Your task to perform on an android device: open app "Truecaller" (install if not already installed) and enter user name: "coauthor@gmail.com" and password: "quadrangle" Image 0: 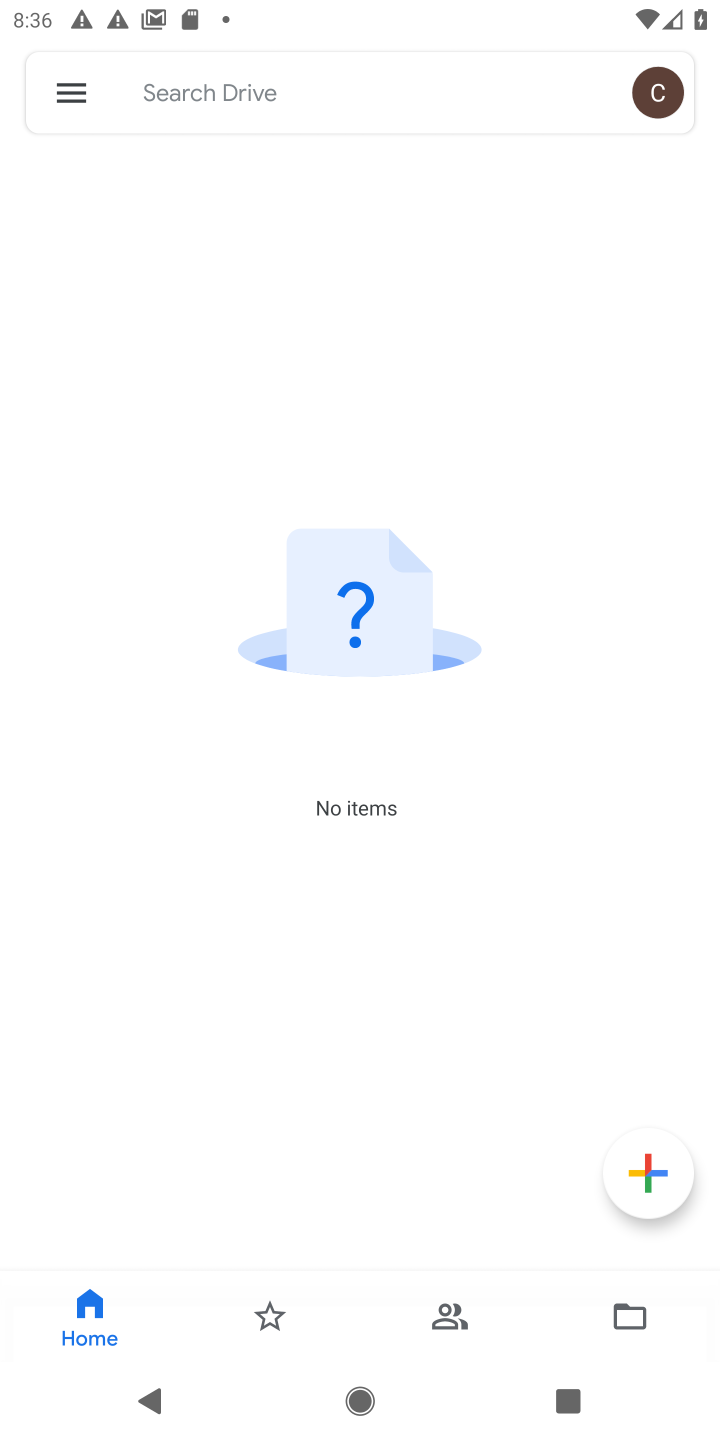
Step 0: press back button
Your task to perform on an android device: open app "Truecaller" (install if not already installed) and enter user name: "coauthor@gmail.com" and password: "quadrangle" Image 1: 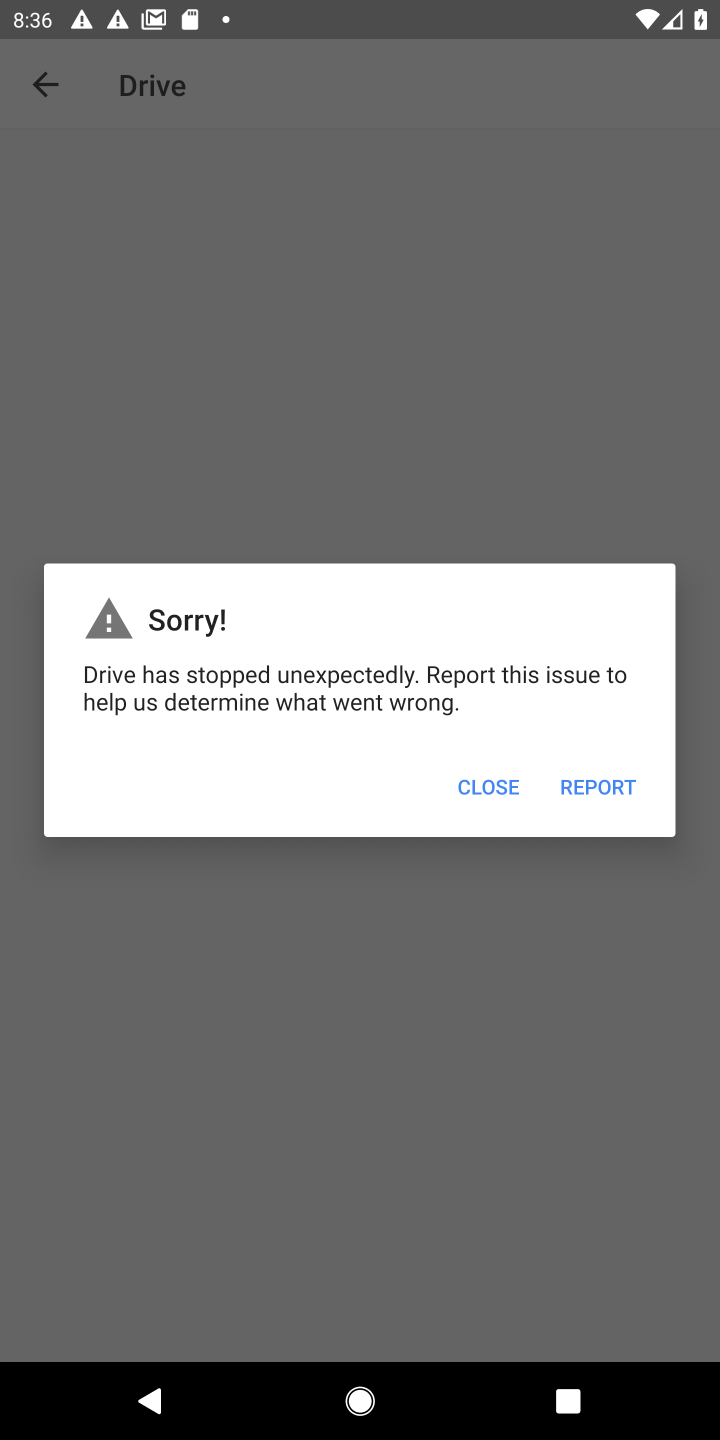
Step 1: press back button
Your task to perform on an android device: open app "Truecaller" (install if not already installed) and enter user name: "coauthor@gmail.com" and password: "quadrangle" Image 2: 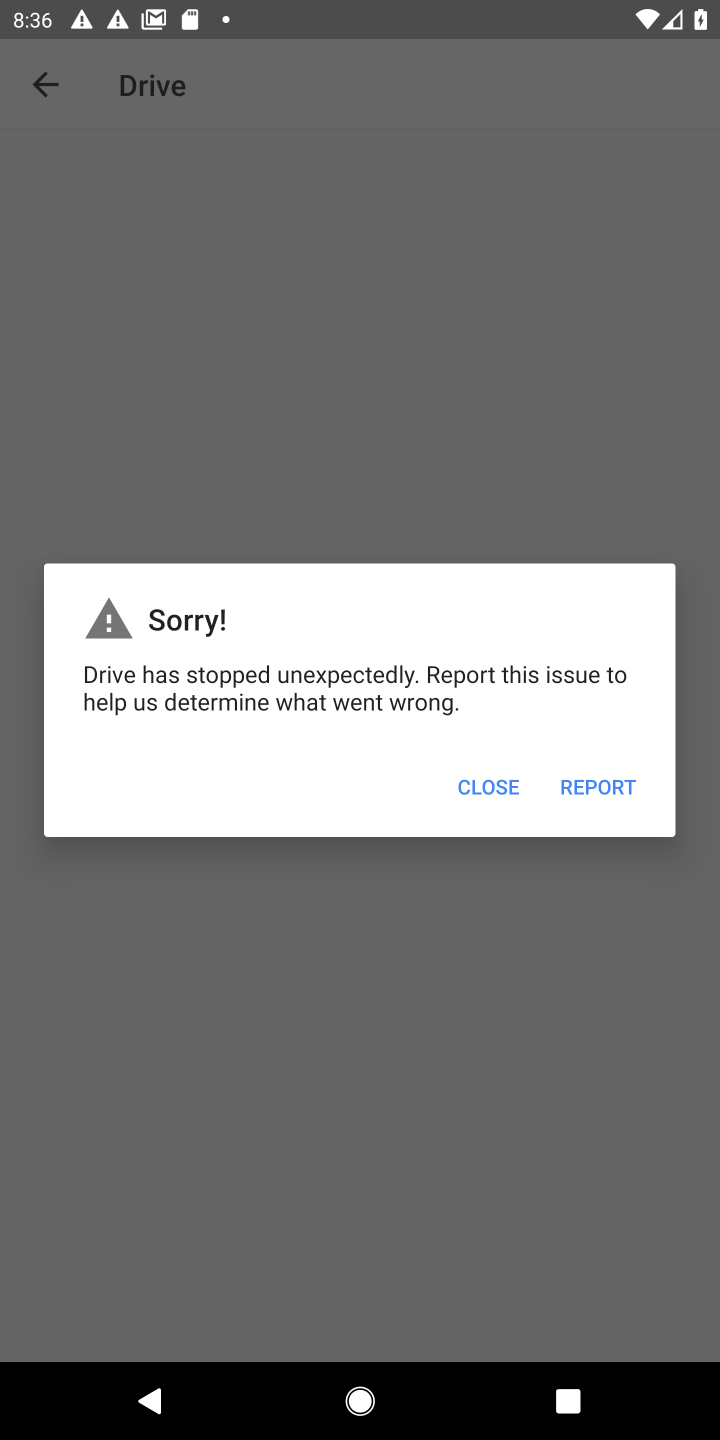
Step 2: press back button
Your task to perform on an android device: open app "Truecaller" (install if not already installed) and enter user name: "coauthor@gmail.com" and password: "quadrangle" Image 3: 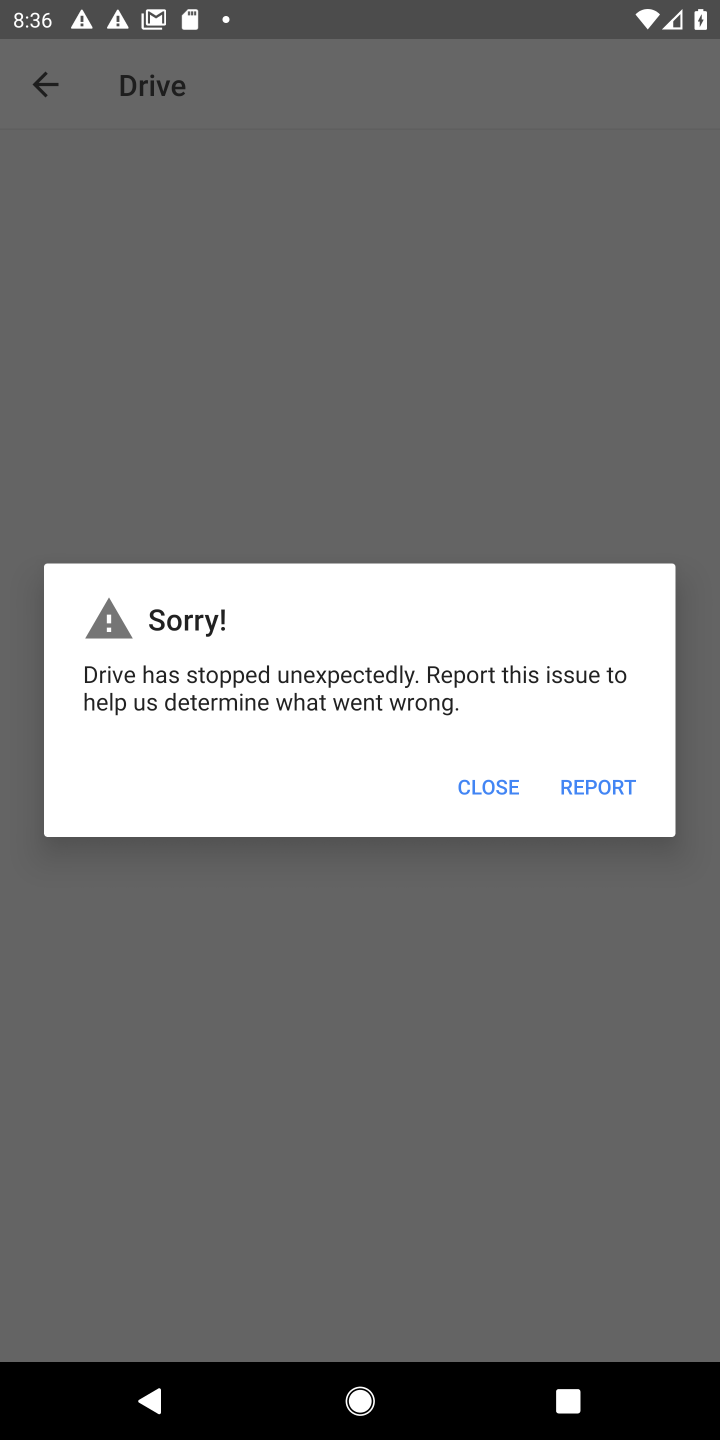
Step 3: click (523, 771)
Your task to perform on an android device: open app "Truecaller" (install if not already installed) and enter user name: "coauthor@gmail.com" and password: "quadrangle" Image 4: 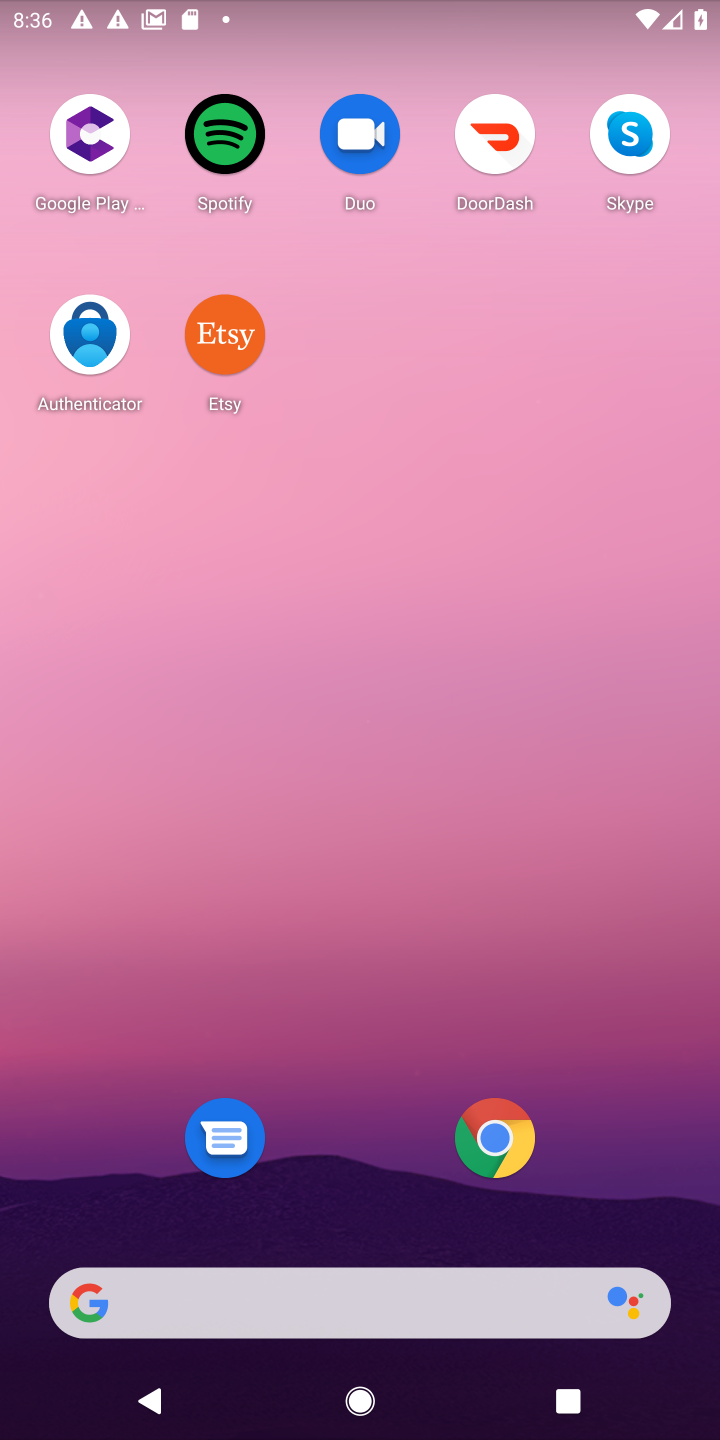
Step 4: drag from (346, 1244) to (387, 134)
Your task to perform on an android device: open app "Truecaller" (install if not already installed) and enter user name: "coauthor@gmail.com" and password: "quadrangle" Image 5: 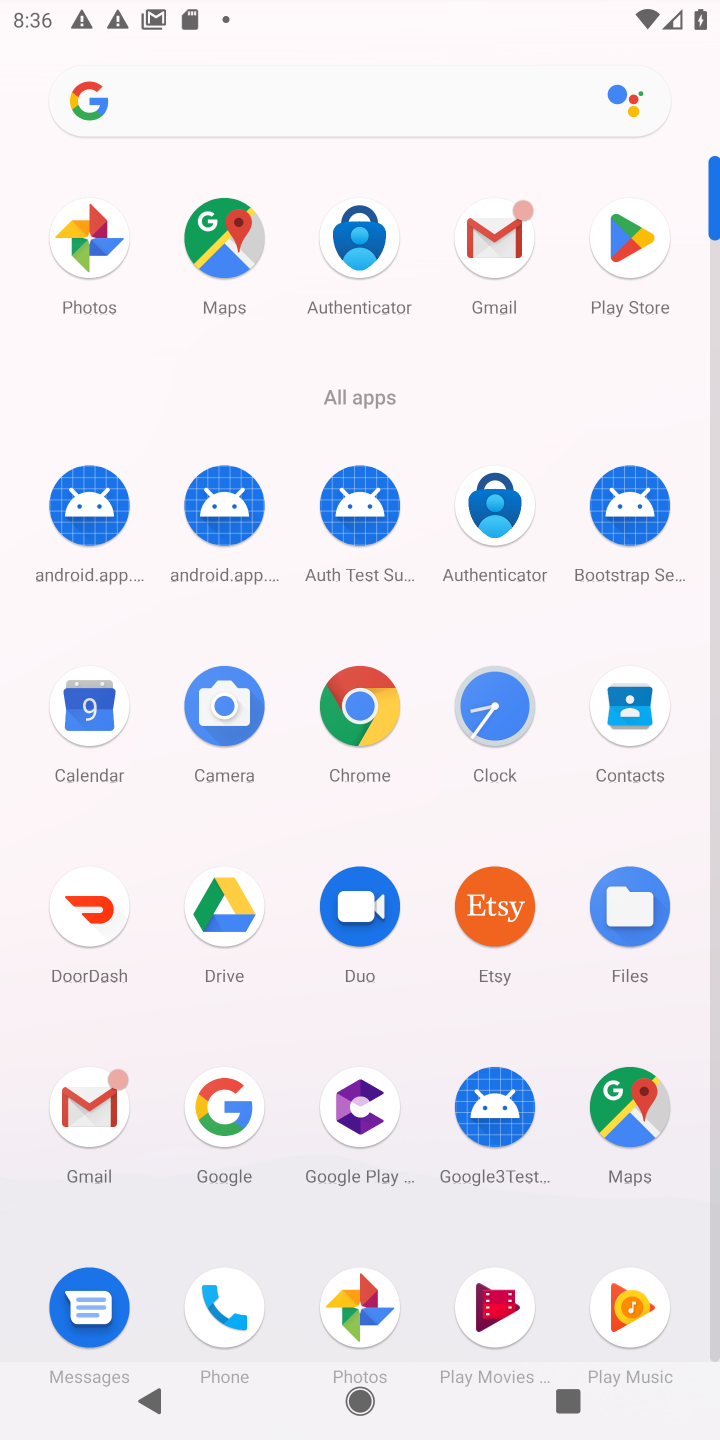
Step 5: click (375, 110)
Your task to perform on an android device: open app "Truecaller" (install if not already installed) and enter user name: "coauthor@gmail.com" and password: "quadrangle" Image 6: 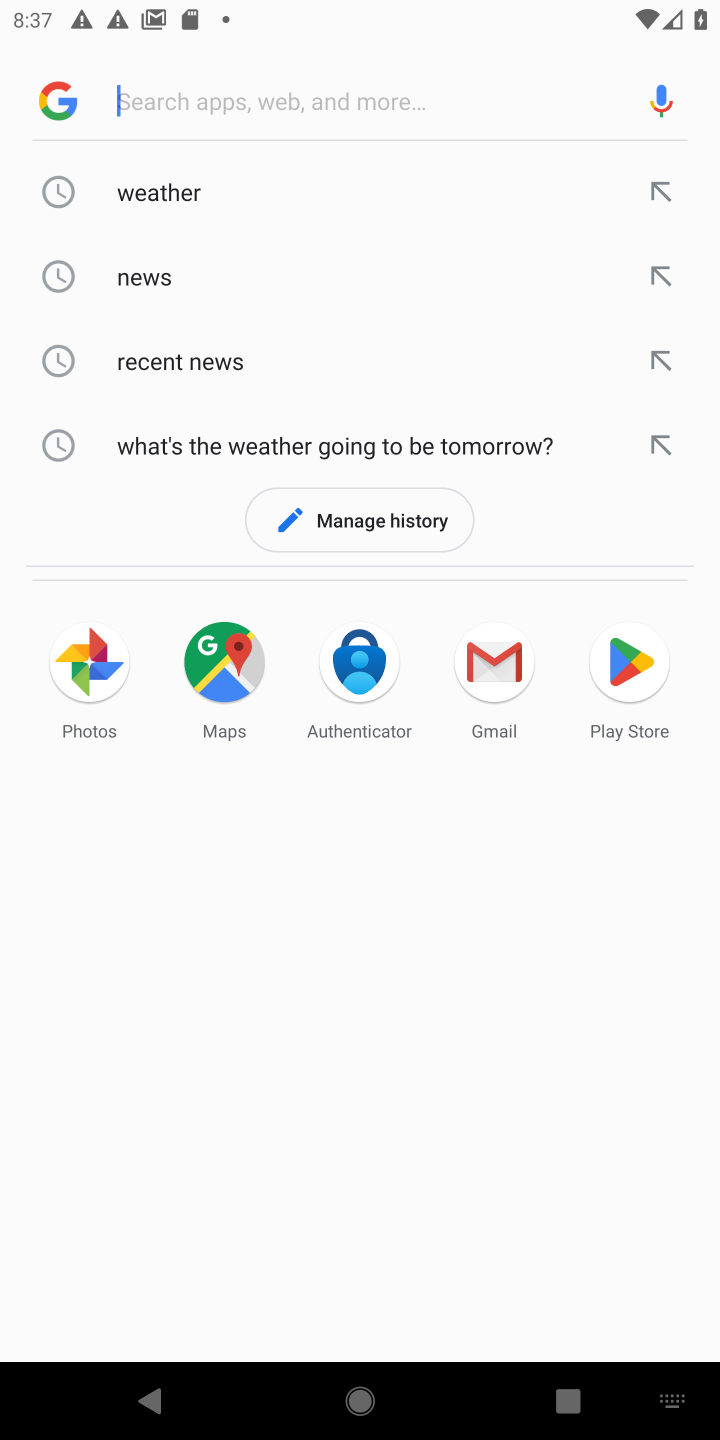
Step 6: type "truecaller"
Your task to perform on an android device: open app "Truecaller" (install if not already installed) and enter user name: "coauthor@gmail.com" and password: "quadrangle" Image 7: 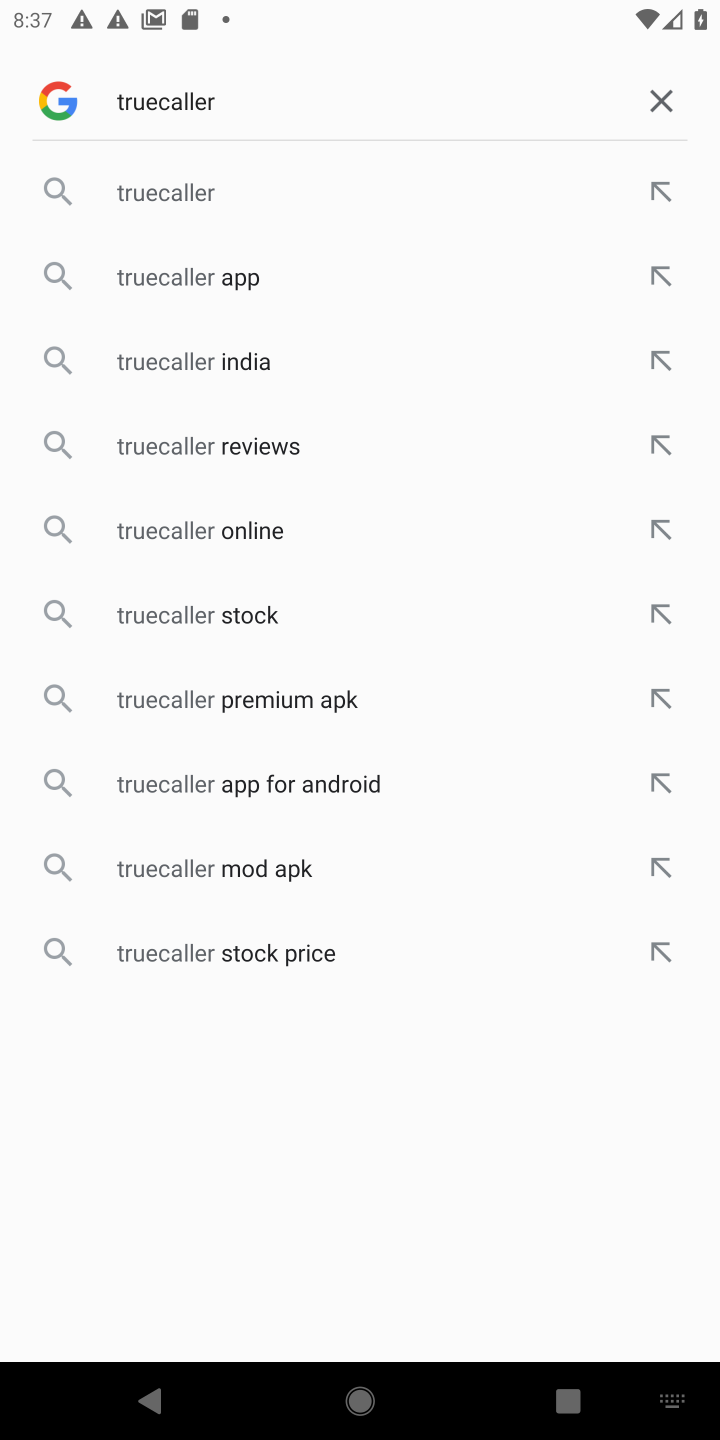
Step 7: click (473, 183)
Your task to perform on an android device: open app "Truecaller" (install if not already installed) and enter user name: "coauthor@gmail.com" and password: "quadrangle" Image 8: 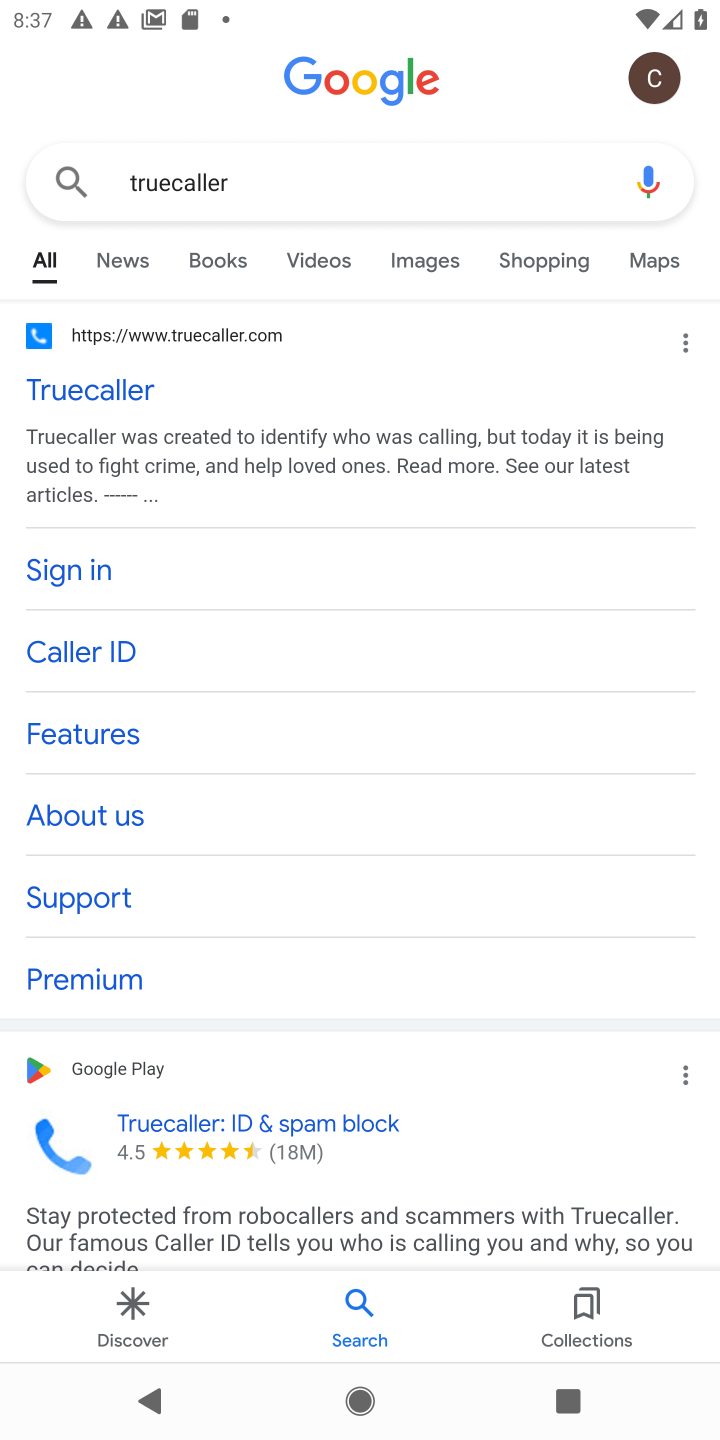
Step 8: drag from (450, 1151) to (518, 501)
Your task to perform on an android device: open app "Truecaller" (install if not already installed) and enter user name: "coauthor@gmail.com" and password: "quadrangle" Image 9: 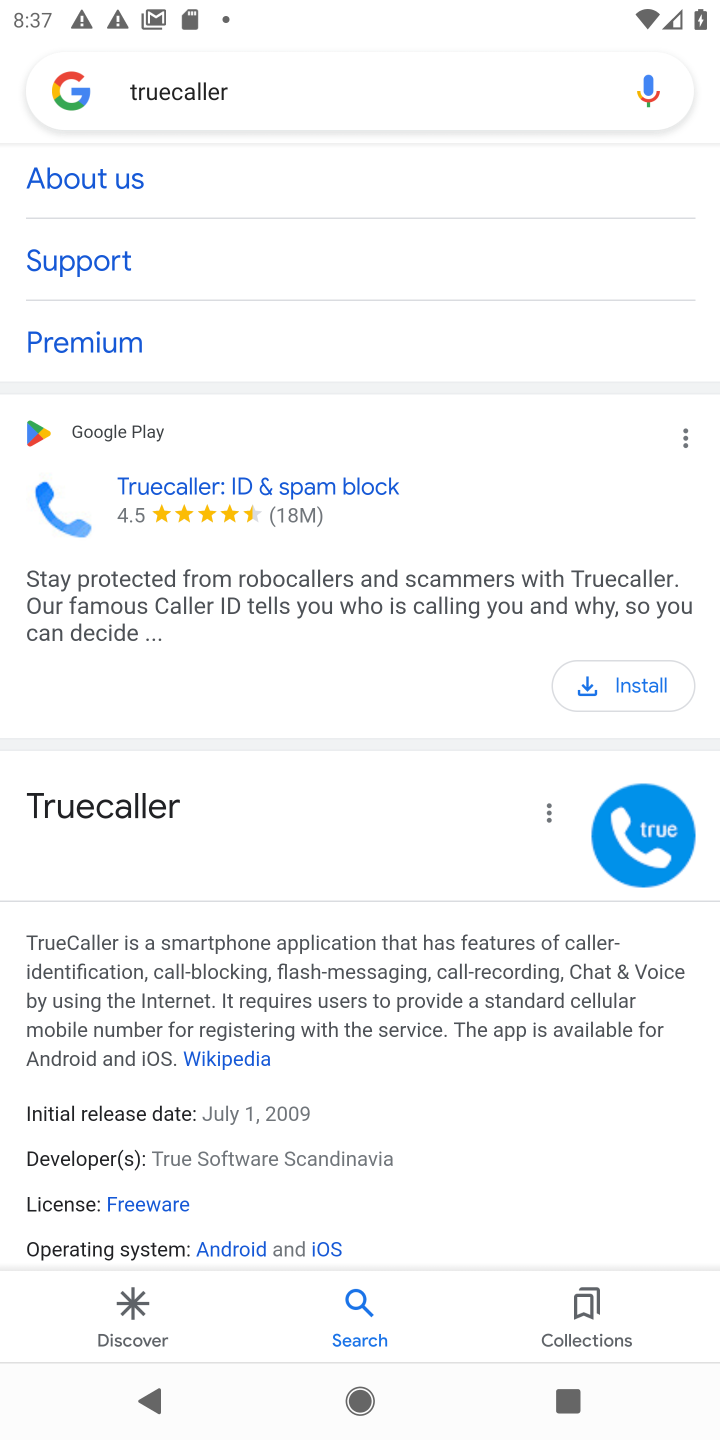
Step 9: click (587, 832)
Your task to perform on an android device: open app "Truecaller" (install if not already installed) and enter user name: "coauthor@gmail.com" and password: "quadrangle" Image 10: 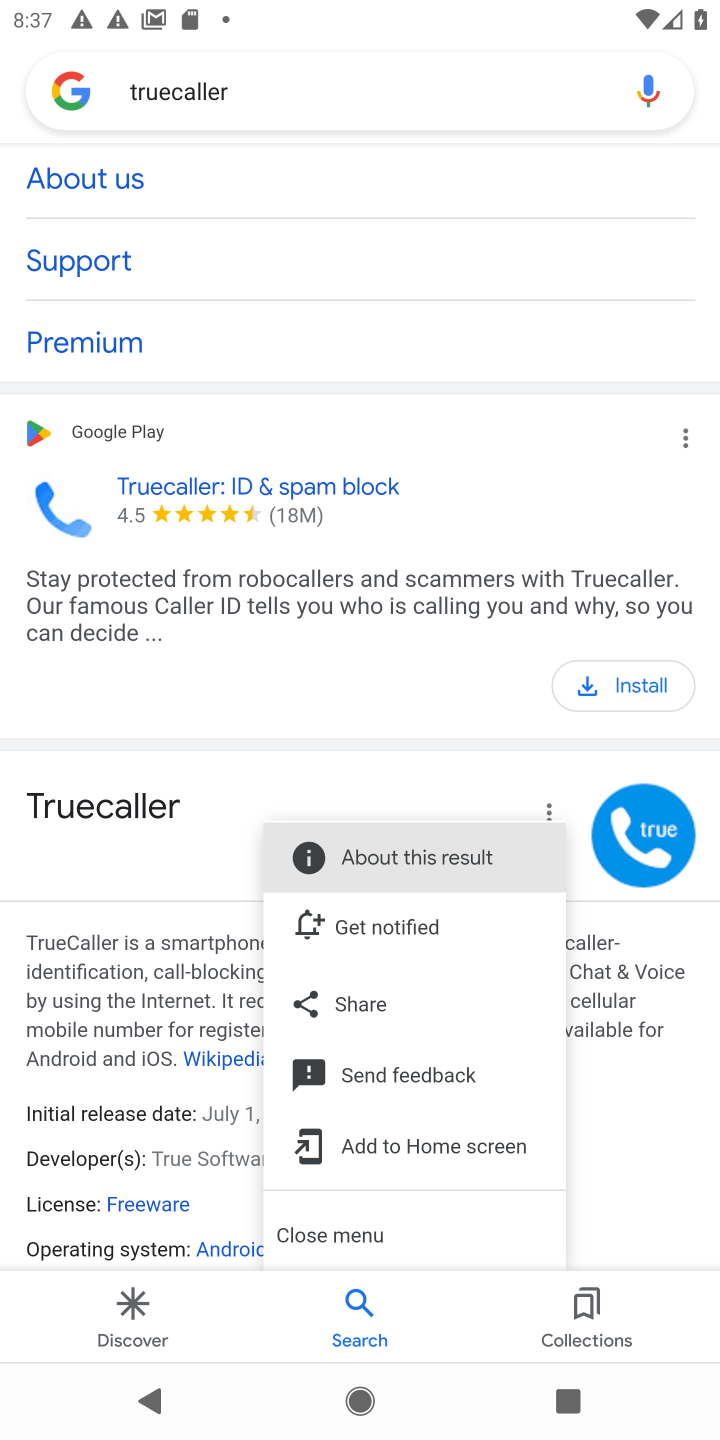
Step 10: click (591, 687)
Your task to perform on an android device: open app "Truecaller" (install if not already installed) and enter user name: "coauthor@gmail.com" and password: "quadrangle" Image 11: 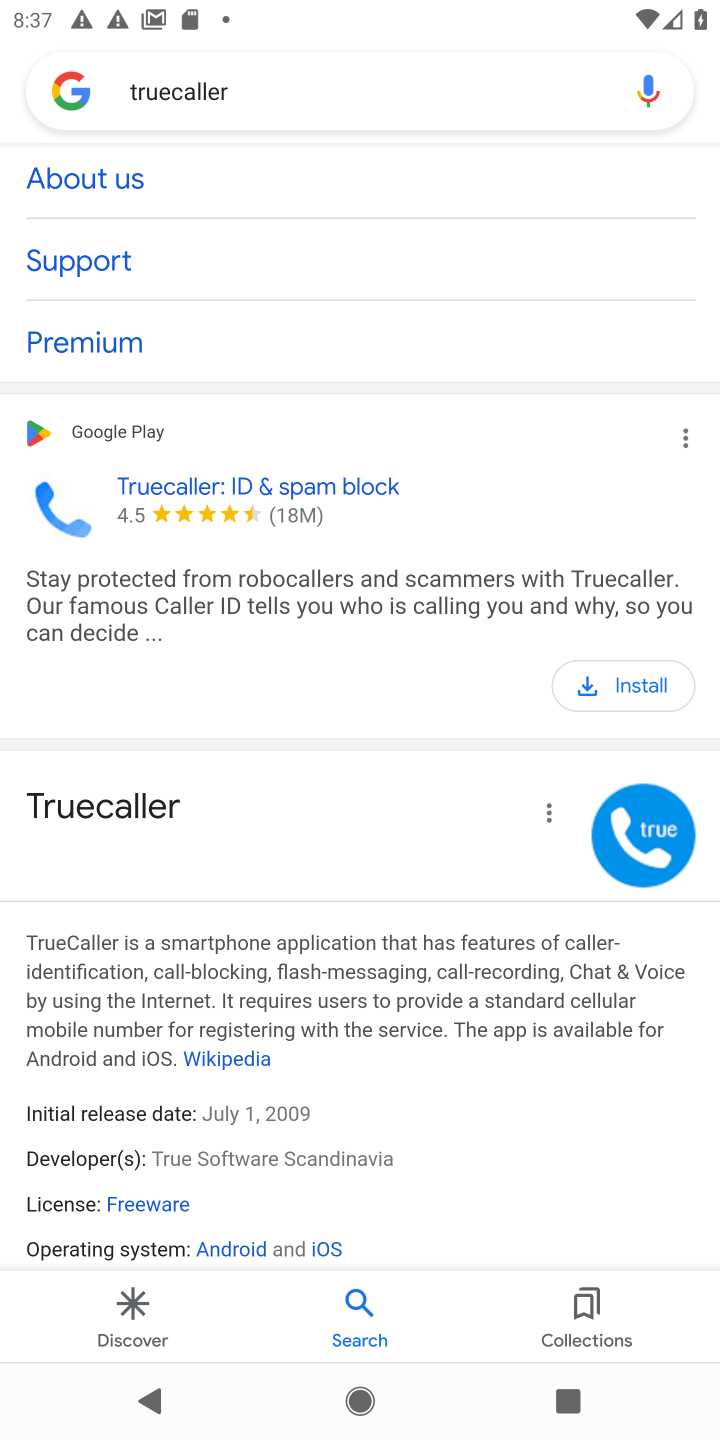
Step 11: click (591, 687)
Your task to perform on an android device: open app "Truecaller" (install if not already installed) and enter user name: "coauthor@gmail.com" and password: "quadrangle" Image 12: 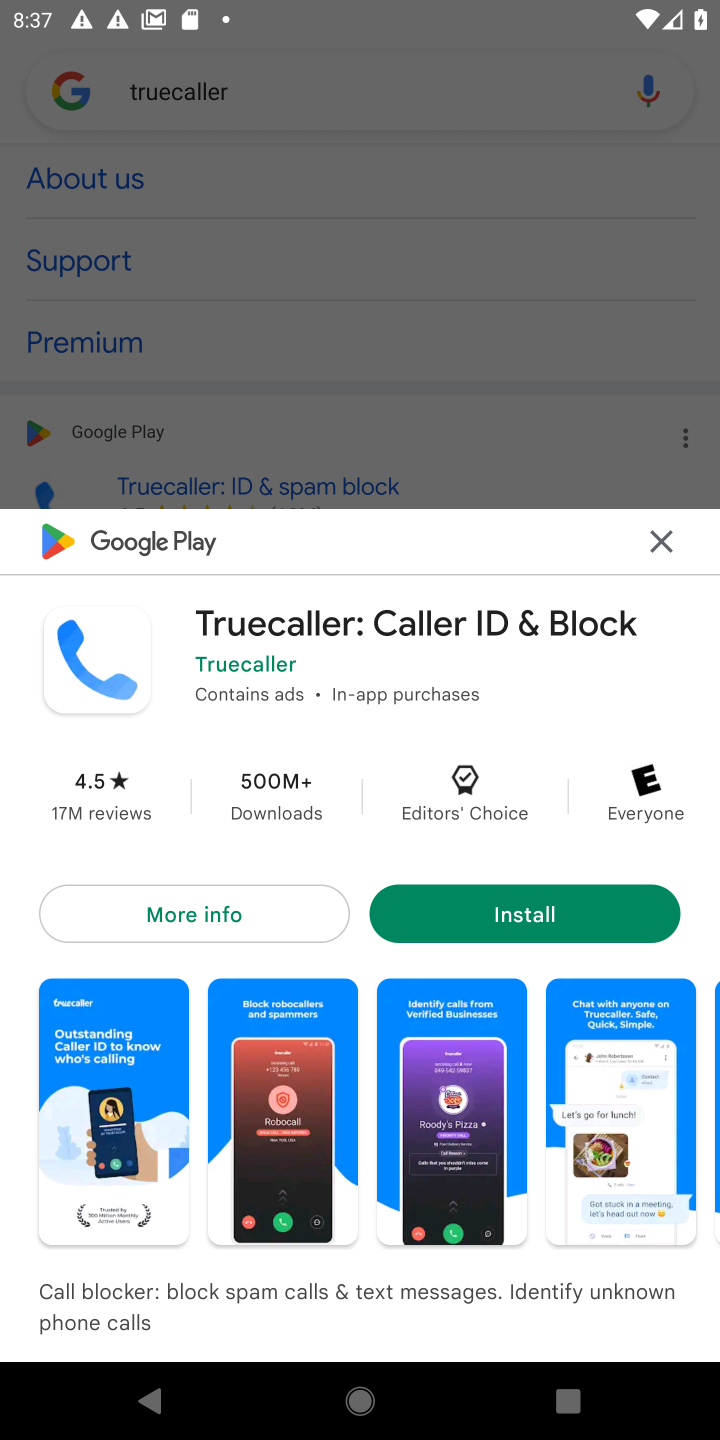
Step 12: click (506, 932)
Your task to perform on an android device: open app "Truecaller" (install if not already installed) and enter user name: "coauthor@gmail.com" and password: "quadrangle" Image 13: 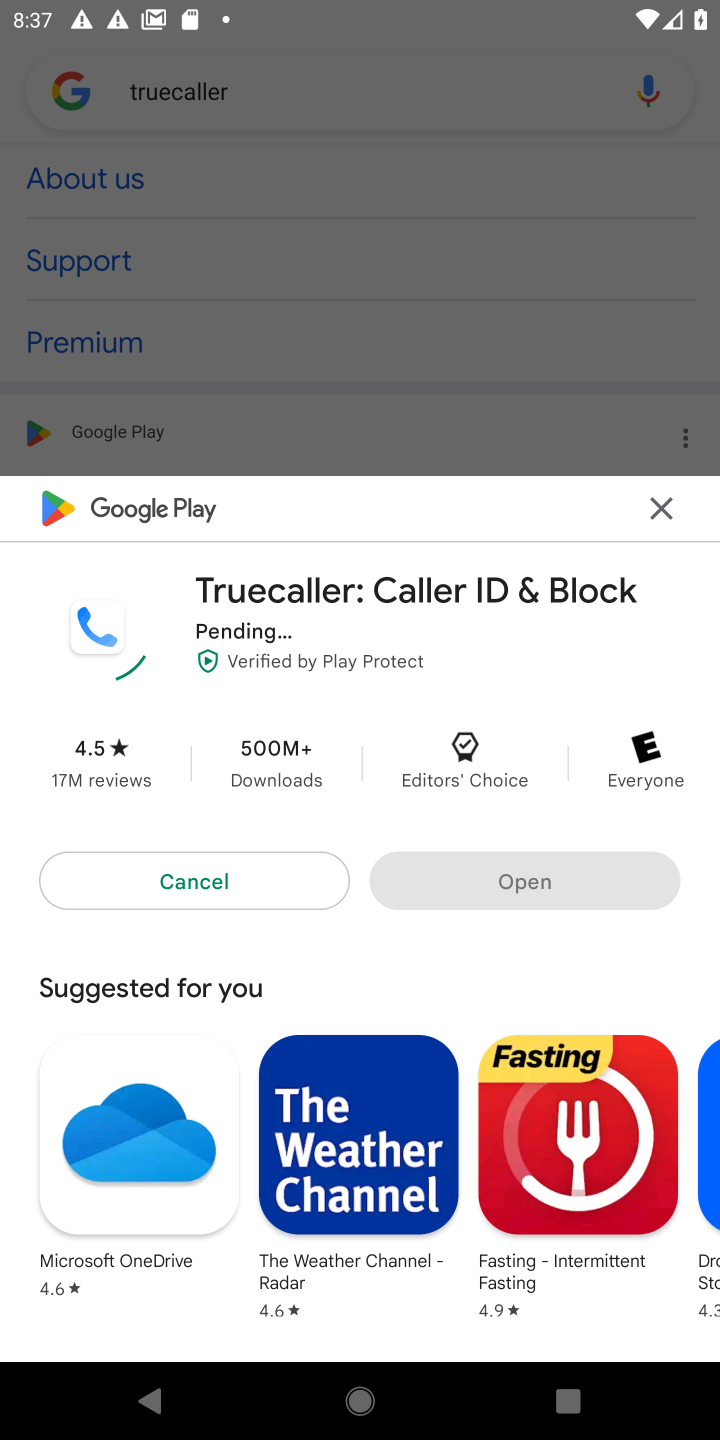
Step 13: task complete